Your task to perform on an android device: Open the web browser Image 0: 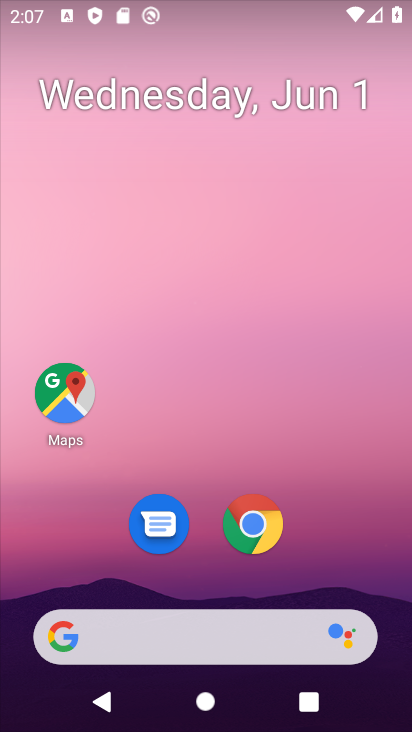
Step 0: click (278, 633)
Your task to perform on an android device: Open the web browser Image 1: 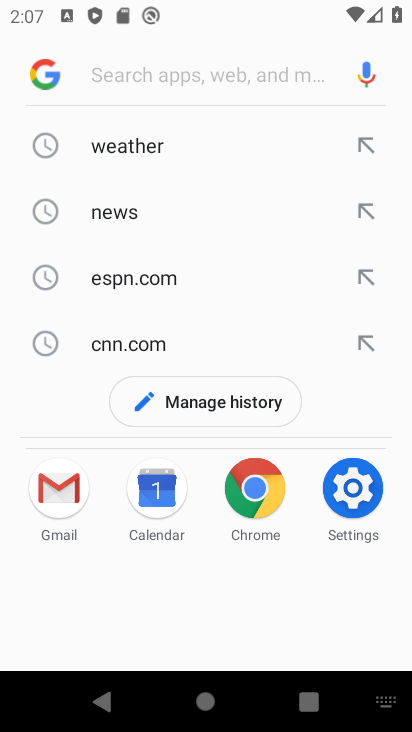
Step 1: task complete